Your task to perform on an android device: Do I have any events today? Image 0: 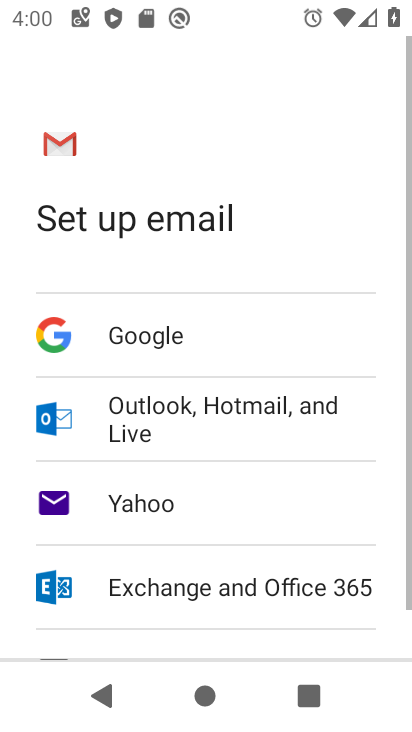
Step 0: press back button
Your task to perform on an android device: Do I have any events today? Image 1: 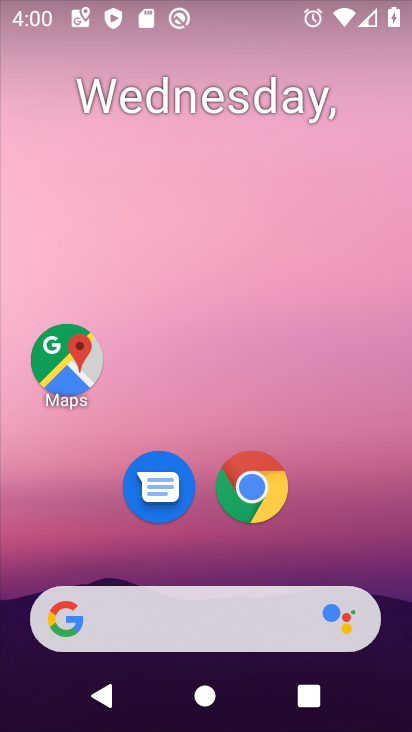
Step 1: drag from (365, 539) to (335, 130)
Your task to perform on an android device: Do I have any events today? Image 2: 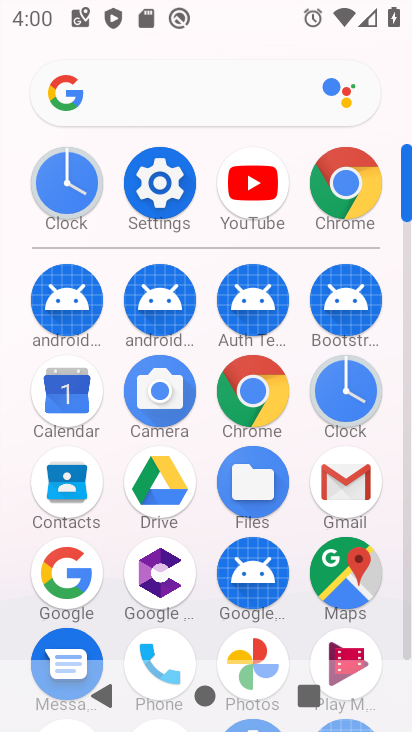
Step 2: click (79, 402)
Your task to perform on an android device: Do I have any events today? Image 3: 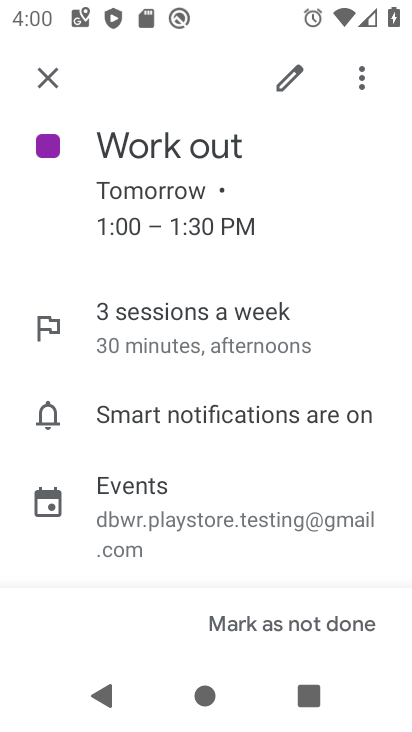
Step 3: click (47, 76)
Your task to perform on an android device: Do I have any events today? Image 4: 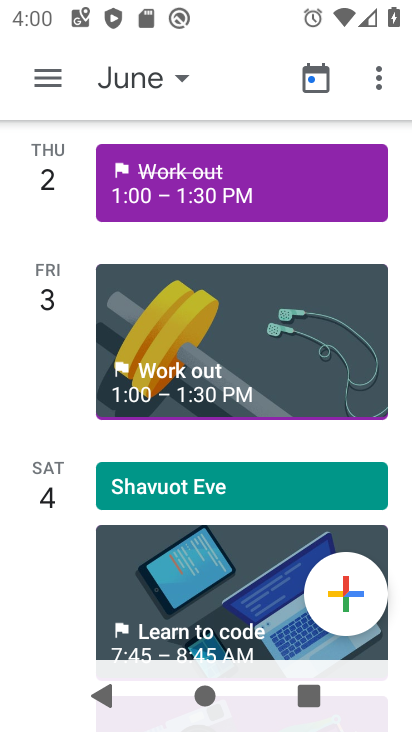
Step 4: drag from (244, 184) to (232, 424)
Your task to perform on an android device: Do I have any events today? Image 5: 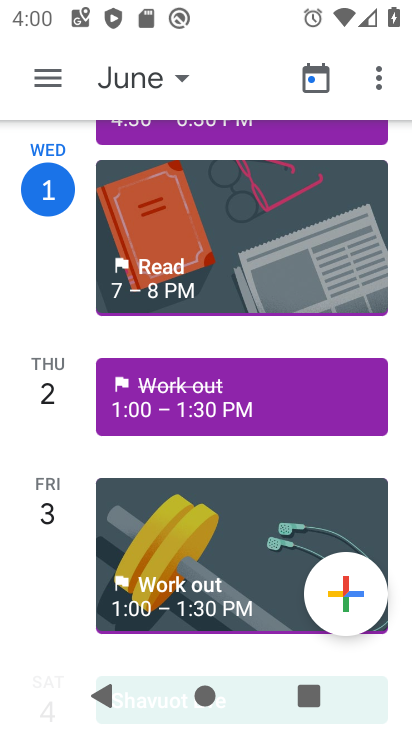
Step 5: drag from (235, 235) to (188, 405)
Your task to perform on an android device: Do I have any events today? Image 6: 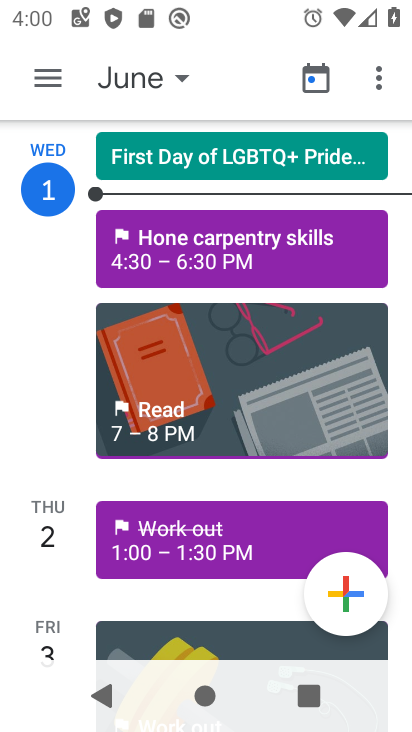
Step 6: click (252, 375)
Your task to perform on an android device: Do I have any events today? Image 7: 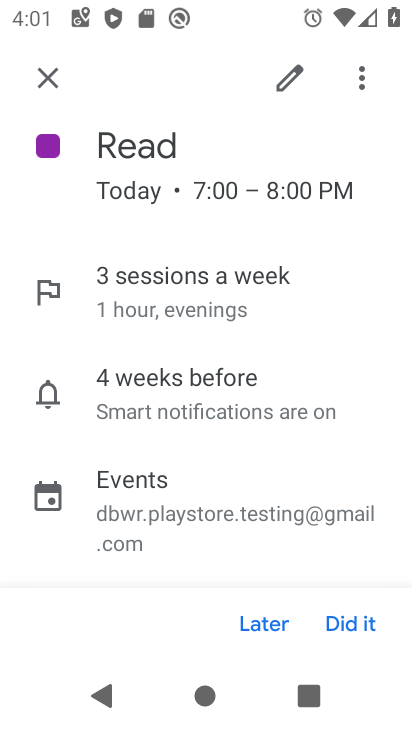
Step 7: task complete